Your task to perform on an android device: Open CNN.com Image 0: 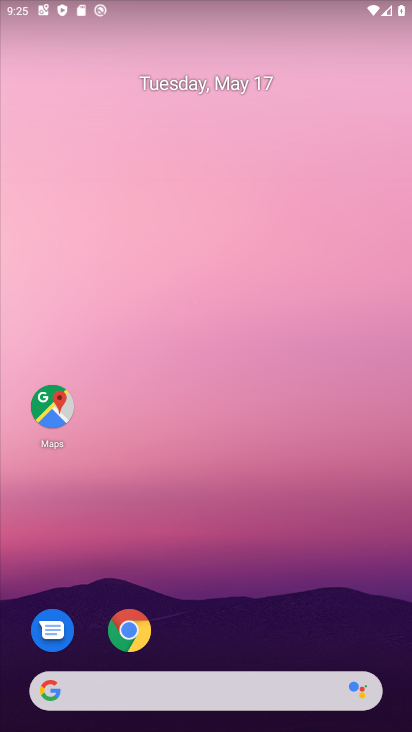
Step 0: drag from (269, 660) to (250, 245)
Your task to perform on an android device: Open CNN.com Image 1: 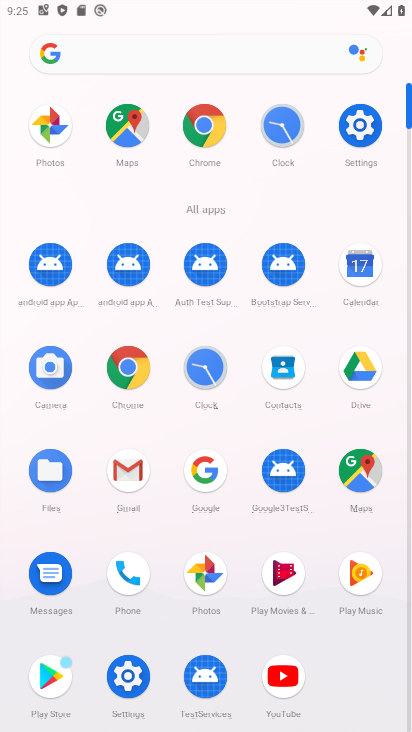
Step 1: click (210, 119)
Your task to perform on an android device: Open CNN.com Image 2: 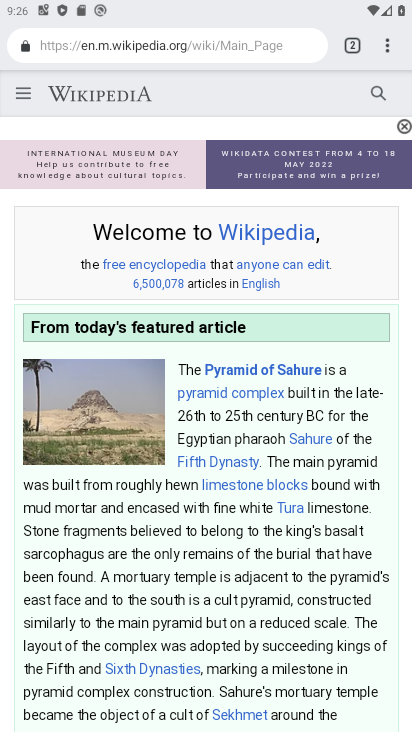
Step 2: click (355, 36)
Your task to perform on an android device: Open CNN.com Image 3: 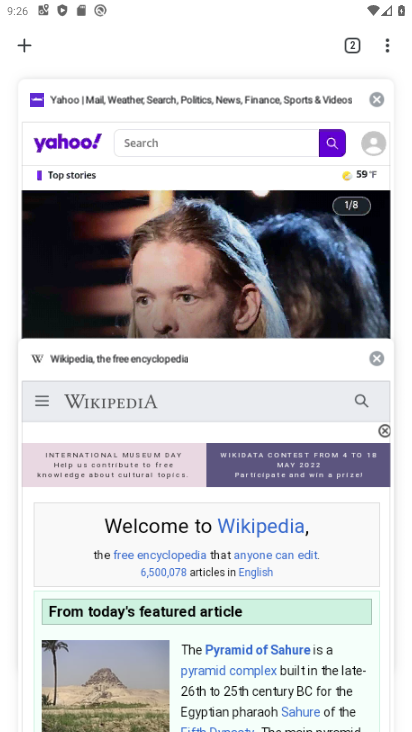
Step 3: click (25, 39)
Your task to perform on an android device: Open CNN.com Image 4: 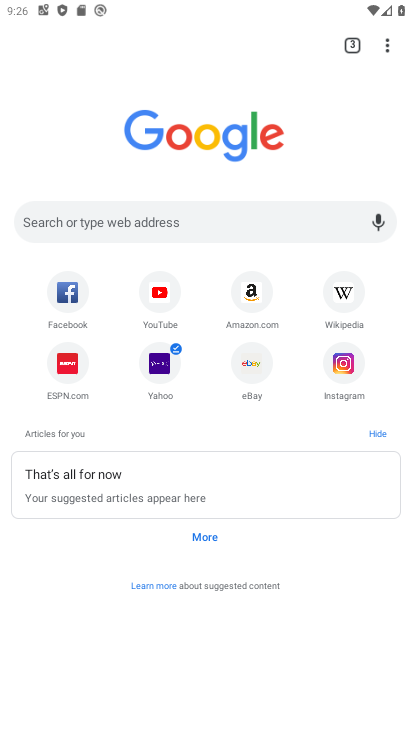
Step 4: click (286, 226)
Your task to perform on an android device: Open CNN.com Image 5: 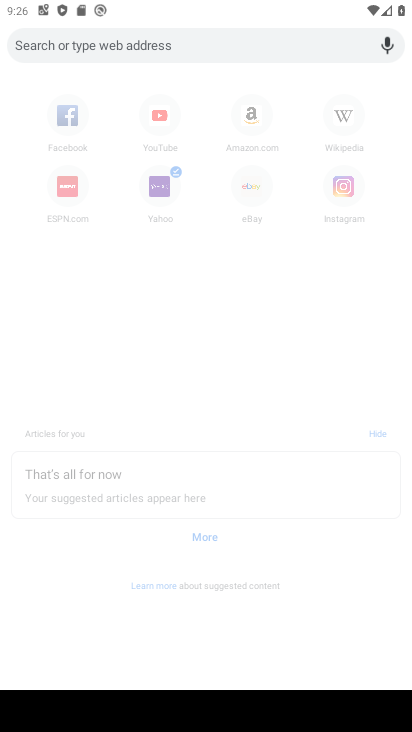
Step 5: type "CNN.com"
Your task to perform on an android device: Open CNN.com Image 6: 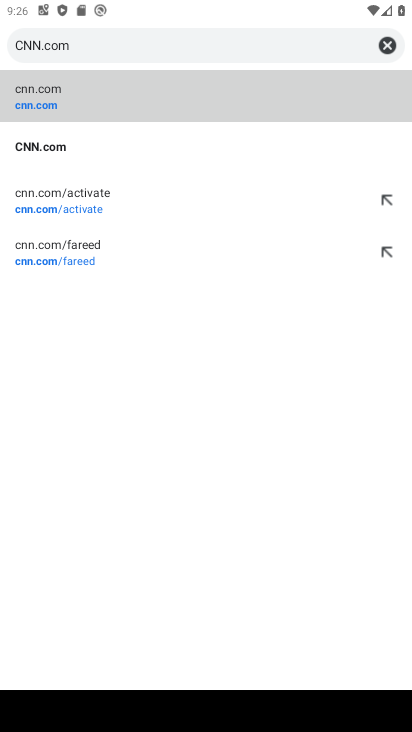
Step 6: click (90, 92)
Your task to perform on an android device: Open CNN.com Image 7: 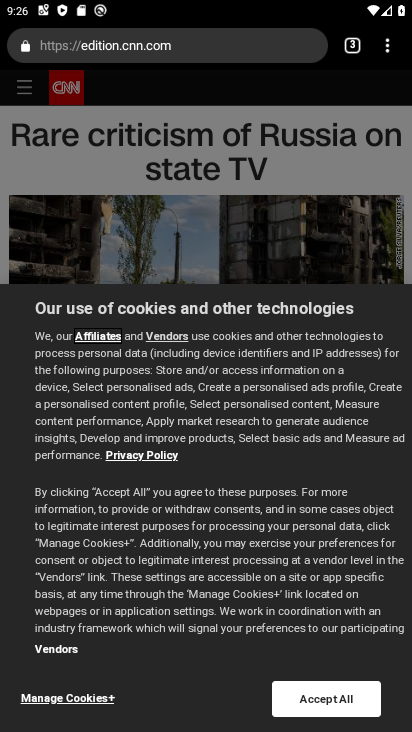
Step 7: click (346, 692)
Your task to perform on an android device: Open CNN.com Image 8: 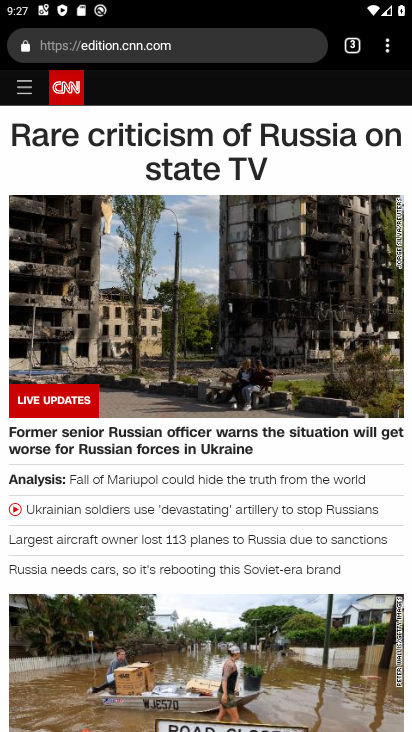
Step 8: task complete